Your task to perform on an android device: Open eBay Image 0: 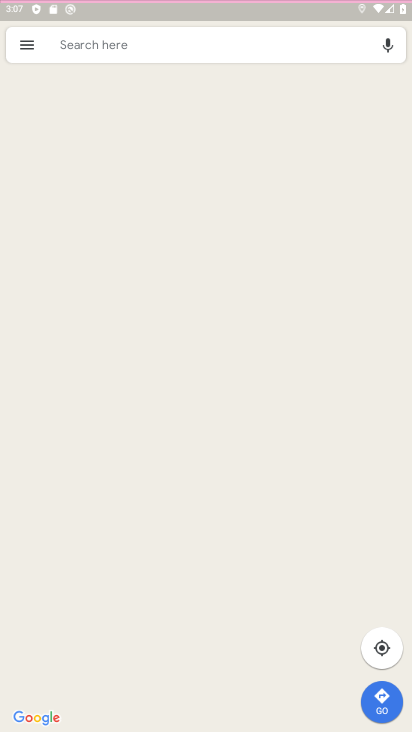
Step 0: click (211, 225)
Your task to perform on an android device: Open eBay Image 1: 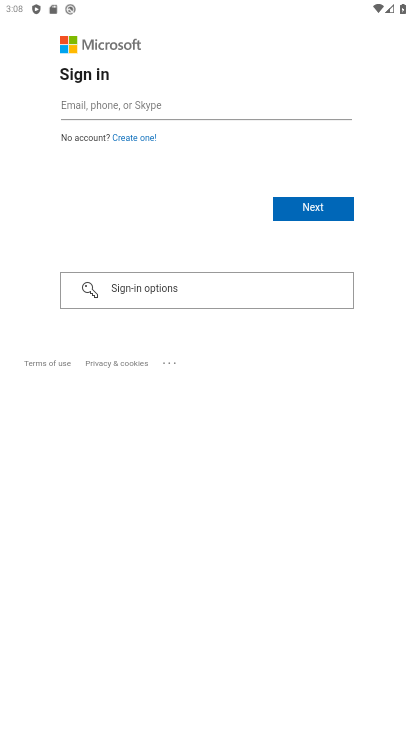
Step 1: press home button
Your task to perform on an android device: Open eBay Image 2: 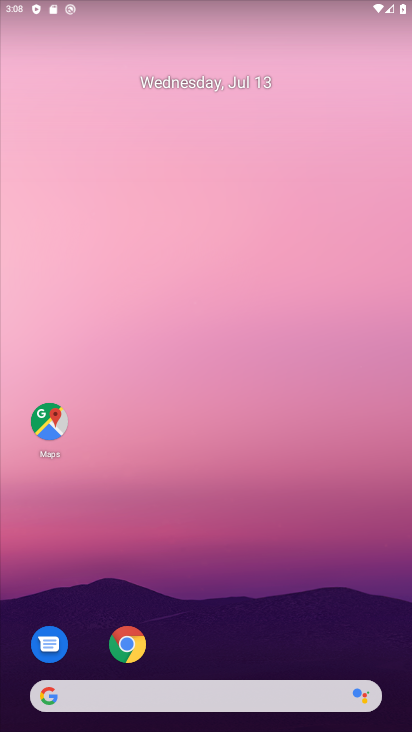
Step 2: drag from (197, 620) to (230, 333)
Your task to perform on an android device: Open eBay Image 3: 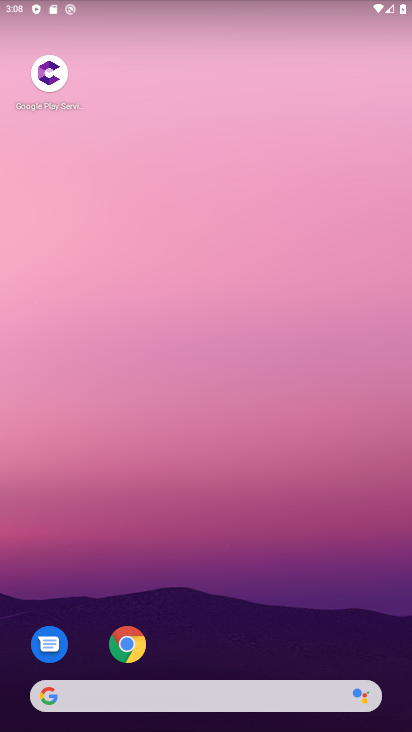
Step 3: drag from (180, 644) to (231, 300)
Your task to perform on an android device: Open eBay Image 4: 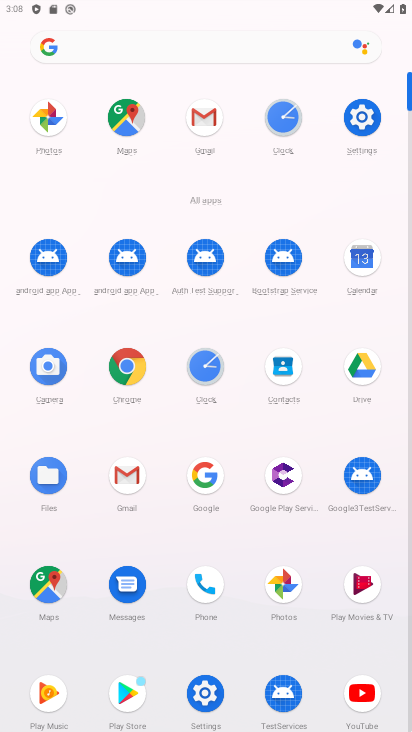
Step 4: click (126, 372)
Your task to perform on an android device: Open eBay Image 5: 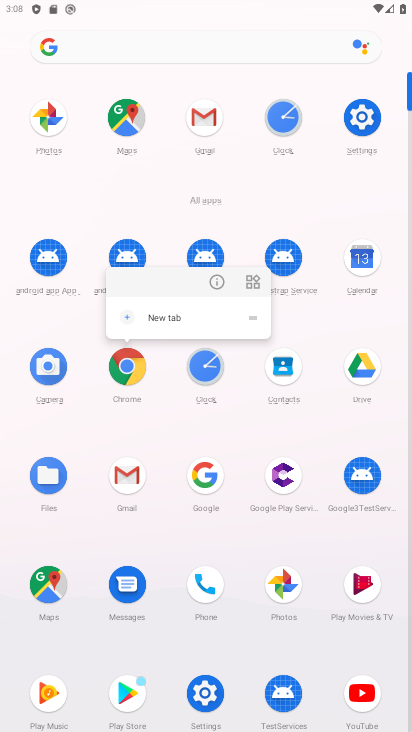
Step 5: click (221, 280)
Your task to perform on an android device: Open eBay Image 6: 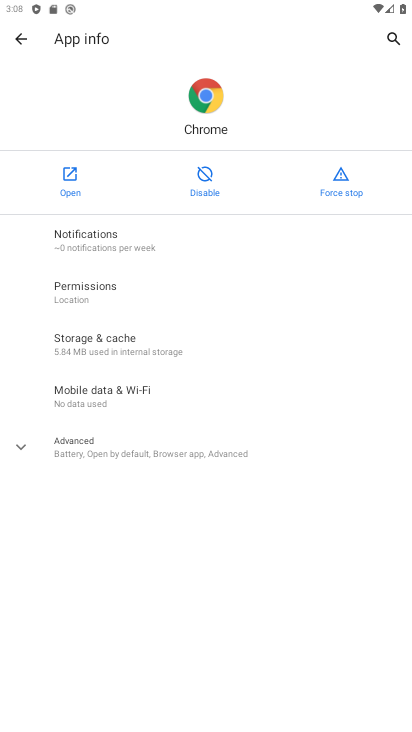
Step 6: click (64, 177)
Your task to perform on an android device: Open eBay Image 7: 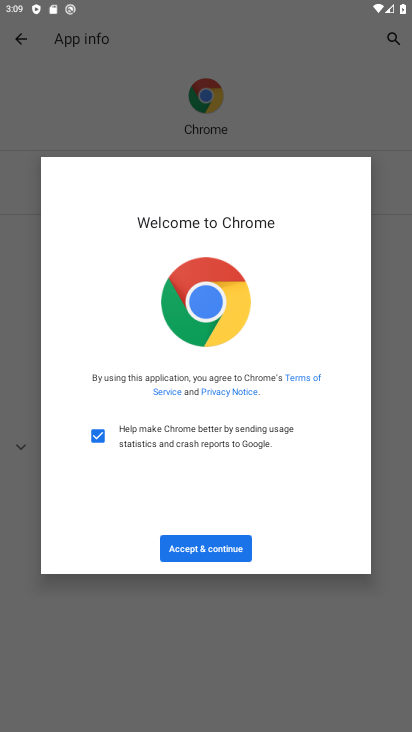
Step 7: click (208, 549)
Your task to perform on an android device: Open eBay Image 8: 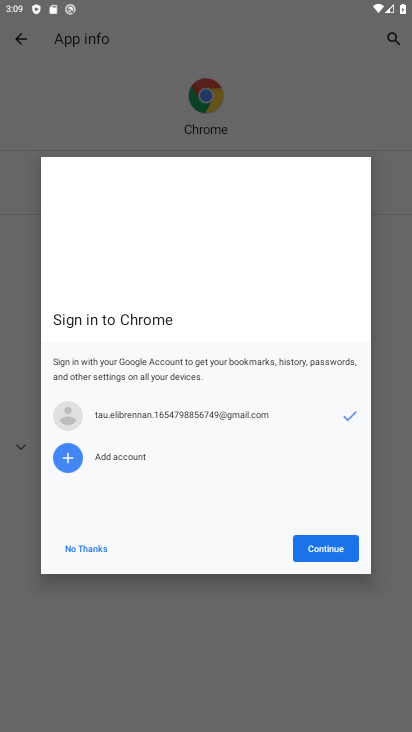
Step 8: click (327, 553)
Your task to perform on an android device: Open eBay Image 9: 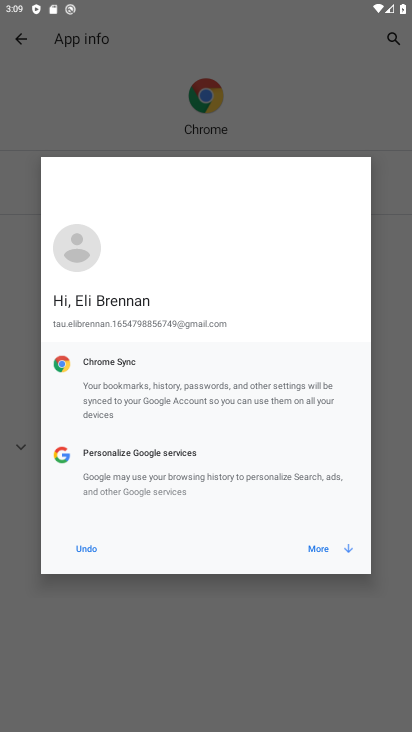
Step 9: click (314, 542)
Your task to perform on an android device: Open eBay Image 10: 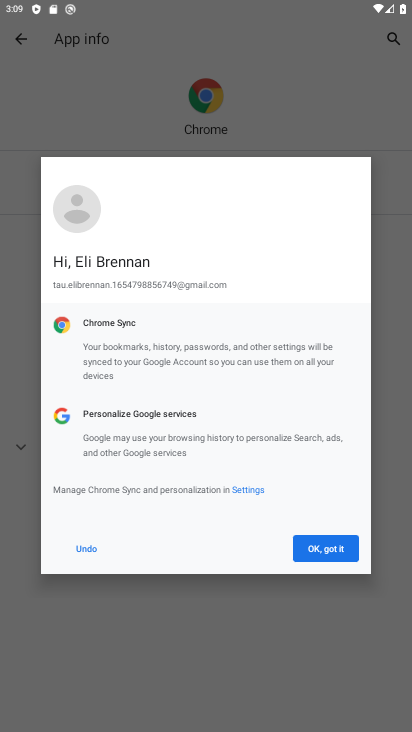
Step 10: click (322, 546)
Your task to perform on an android device: Open eBay Image 11: 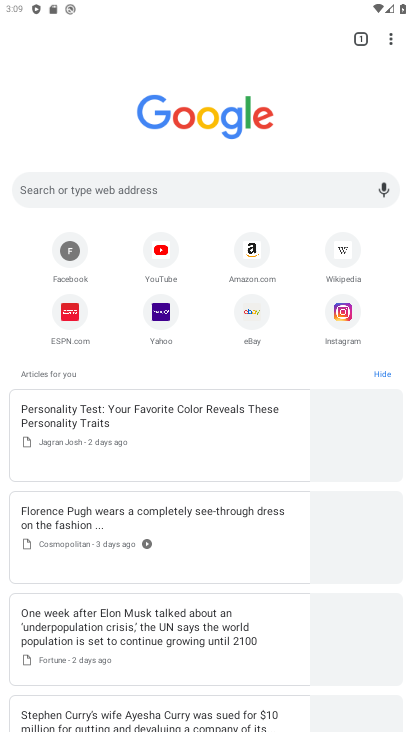
Step 11: click (255, 309)
Your task to perform on an android device: Open eBay Image 12: 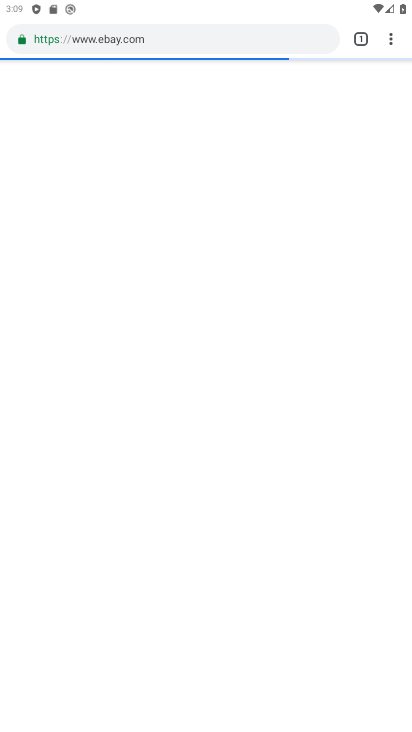
Step 12: task complete